Your task to perform on an android device: How do I get to the nearest McDonalds? Image 0: 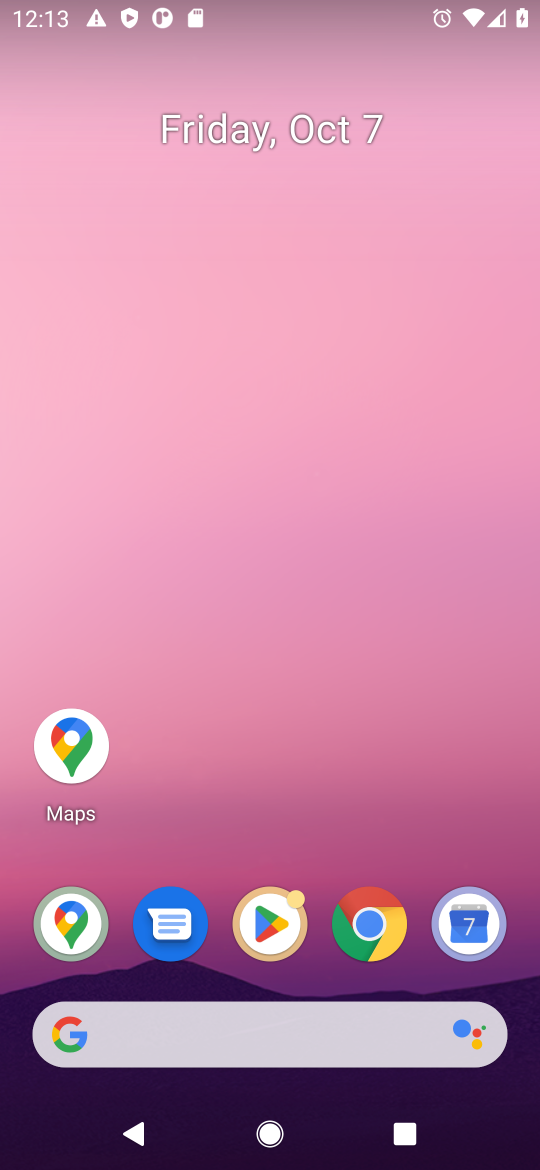
Step 0: click (376, 925)
Your task to perform on an android device: How do I get to the nearest McDonalds? Image 1: 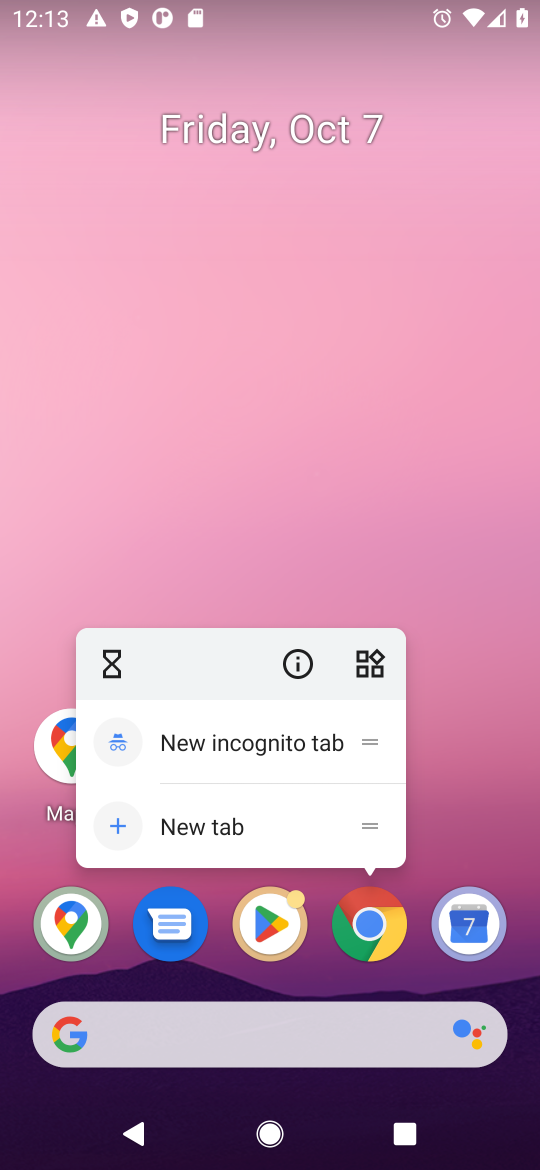
Step 1: click (372, 928)
Your task to perform on an android device: How do I get to the nearest McDonalds? Image 2: 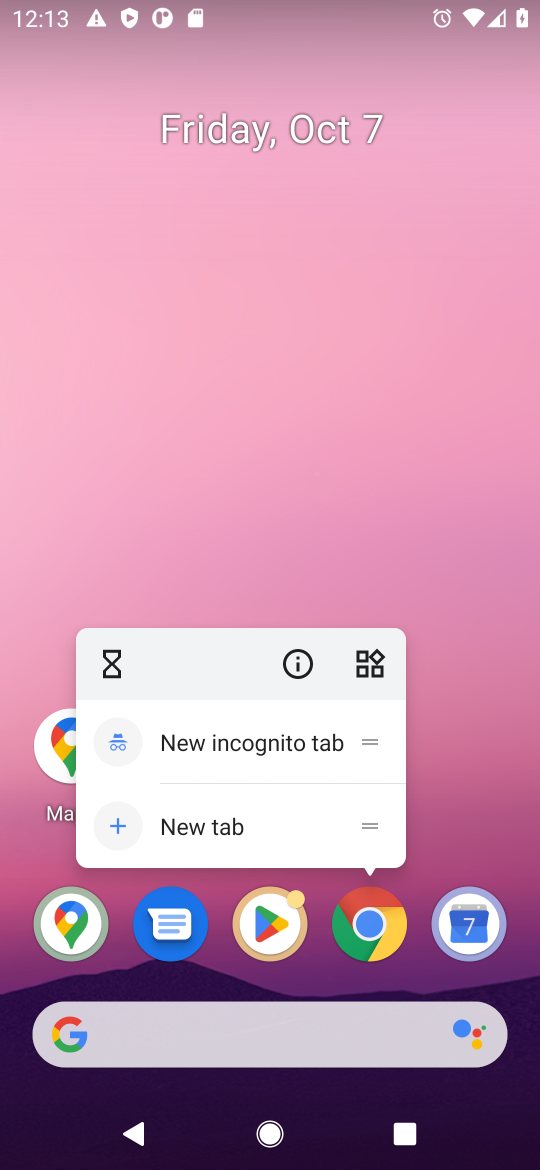
Step 2: click (372, 928)
Your task to perform on an android device: How do I get to the nearest McDonalds? Image 3: 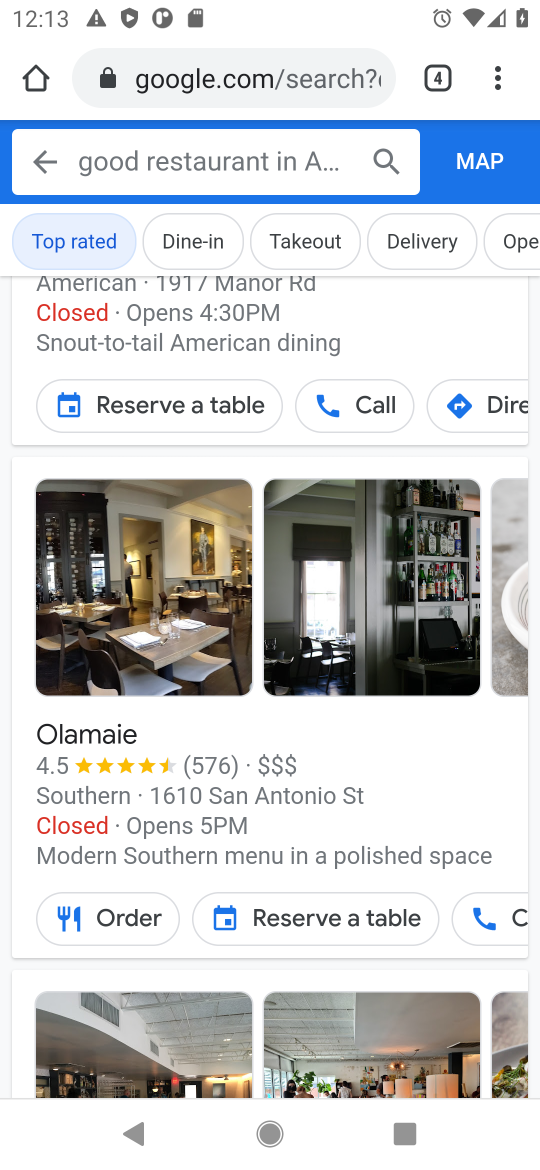
Step 3: click (326, 79)
Your task to perform on an android device: How do I get to the nearest McDonalds? Image 4: 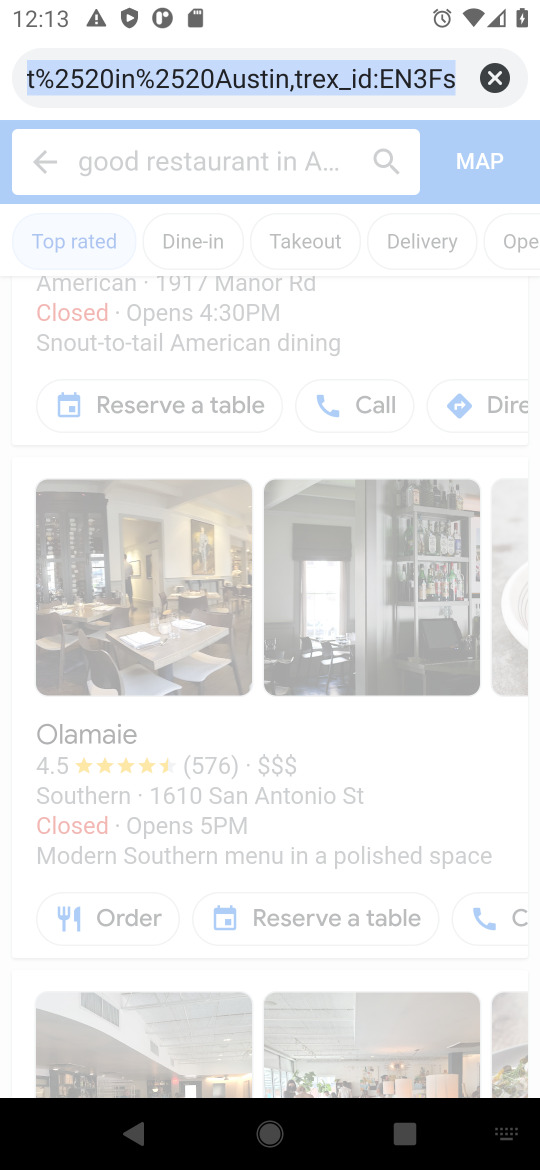
Step 4: click (502, 77)
Your task to perform on an android device: How do I get to the nearest McDonalds? Image 5: 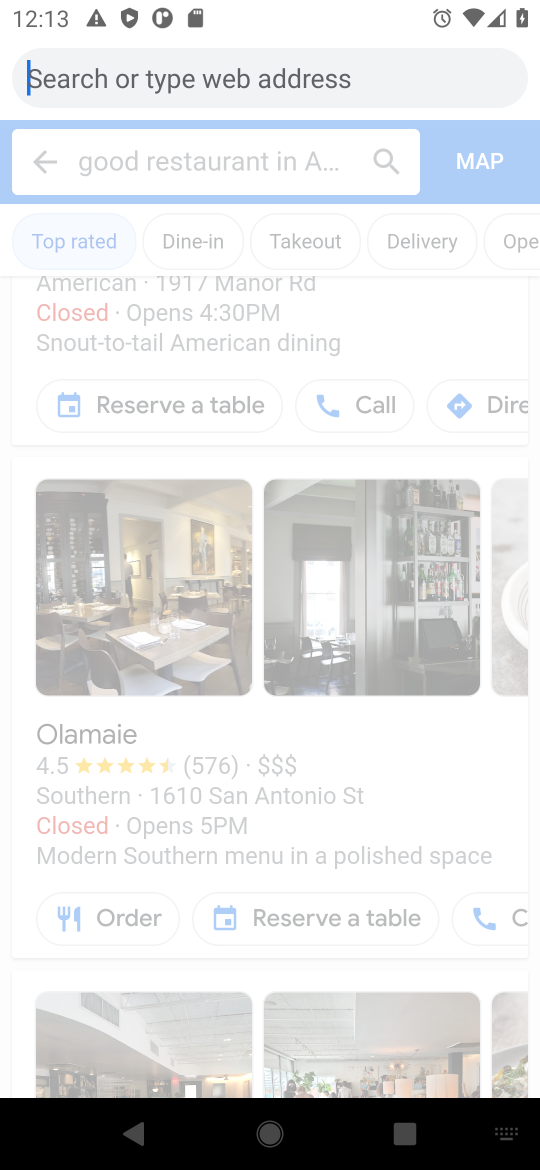
Step 5: type " nearest McDonalds"
Your task to perform on an android device: How do I get to the nearest McDonalds? Image 6: 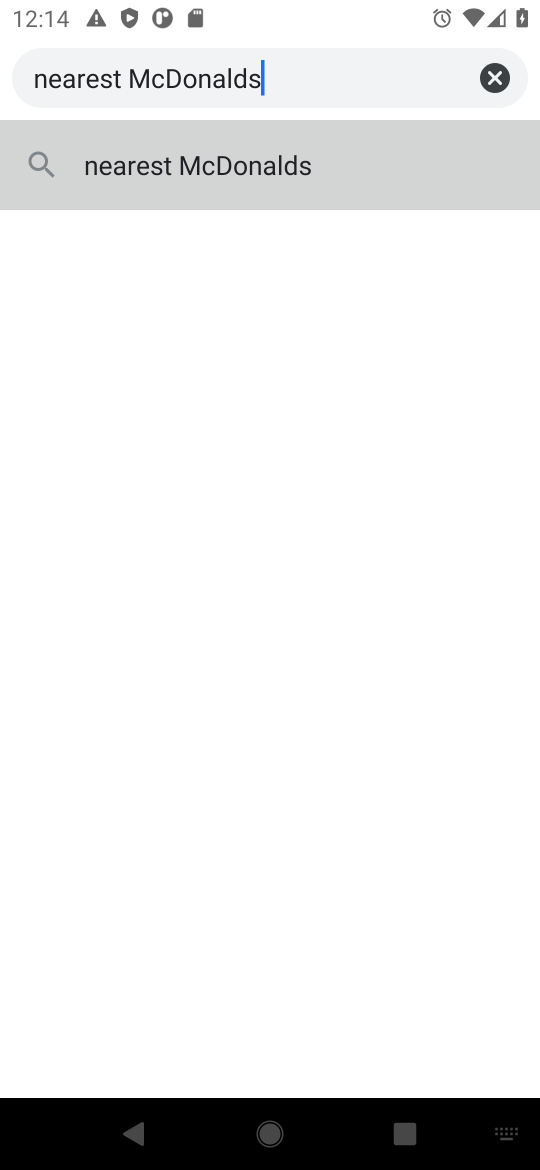
Step 6: click (203, 164)
Your task to perform on an android device: How do I get to the nearest McDonalds? Image 7: 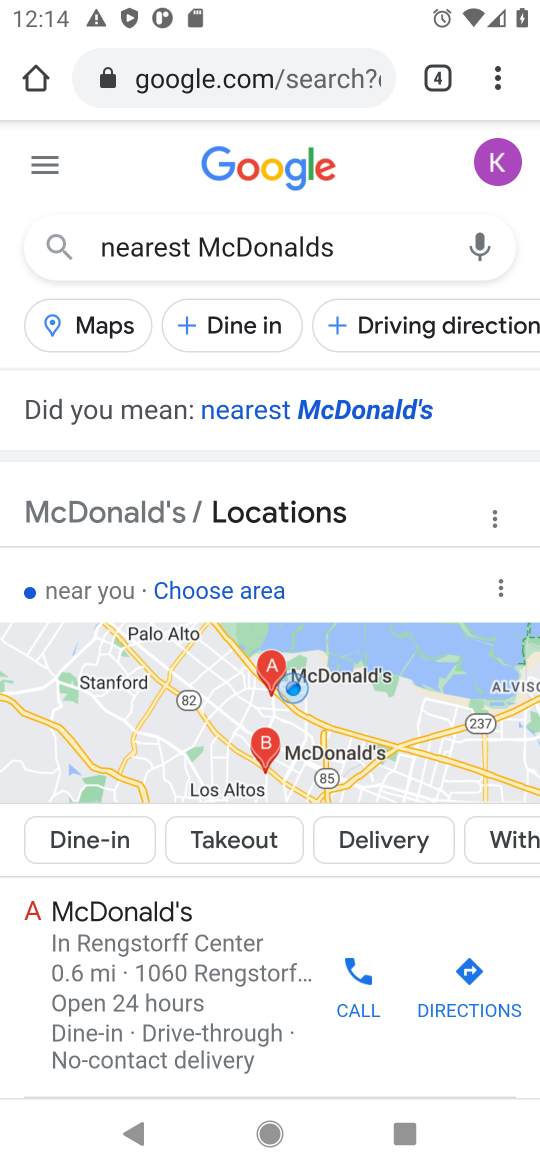
Step 7: drag from (222, 916) to (451, 486)
Your task to perform on an android device: How do I get to the nearest McDonalds? Image 8: 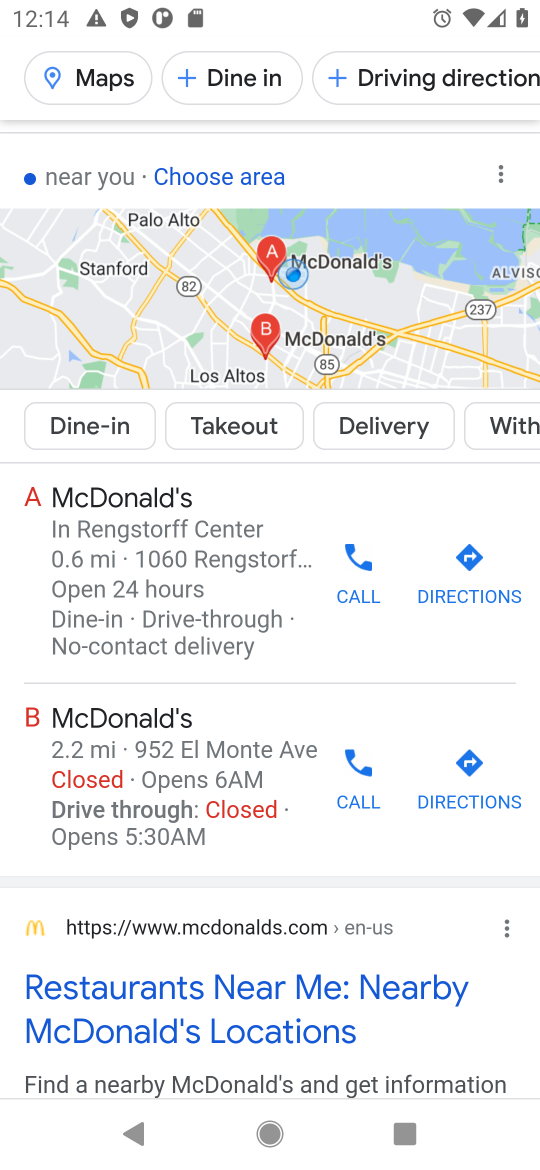
Step 8: click (178, 581)
Your task to perform on an android device: How do I get to the nearest McDonalds? Image 9: 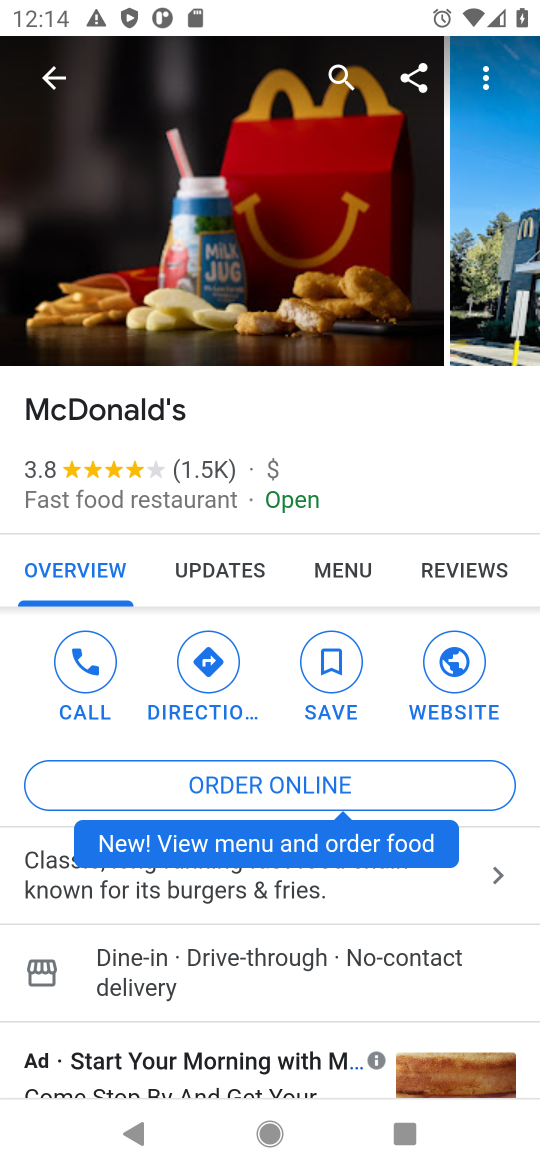
Step 9: task complete